Your task to perform on an android device: turn on location history Image 0: 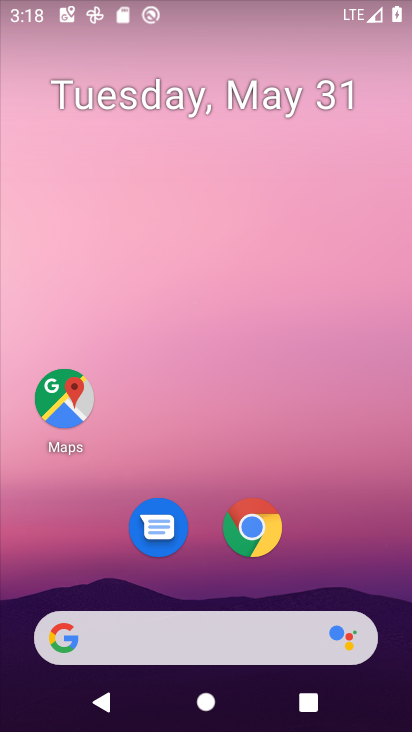
Step 0: drag from (384, 559) to (379, 57)
Your task to perform on an android device: turn on location history Image 1: 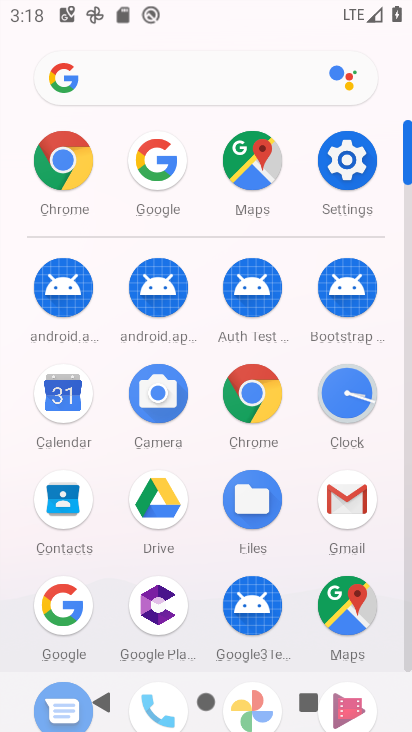
Step 1: click (362, 148)
Your task to perform on an android device: turn on location history Image 2: 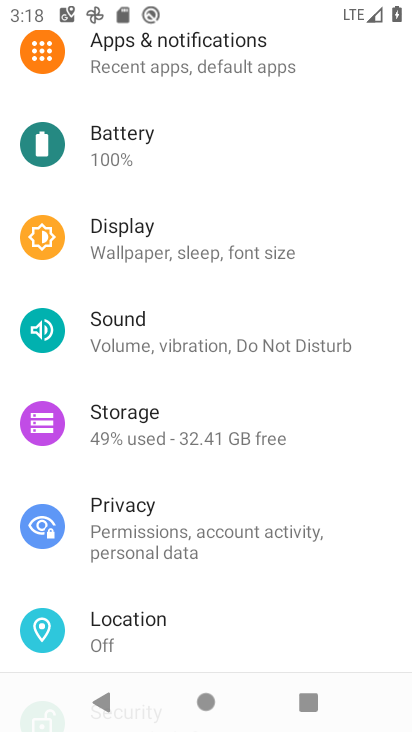
Step 2: click (135, 638)
Your task to perform on an android device: turn on location history Image 3: 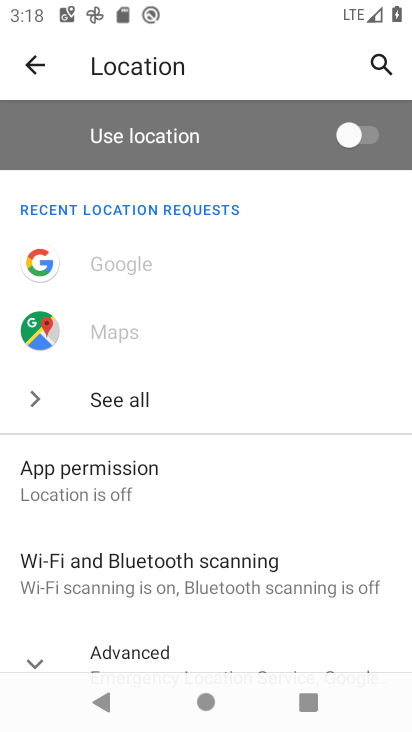
Step 3: drag from (277, 560) to (299, 212)
Your task to perform on an android device: turn on location history Image 4: 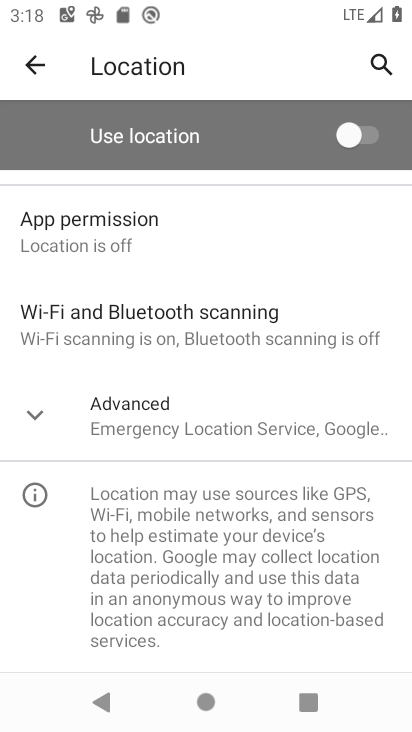
Step 4: click (153, 409)
Your task to perform on an android device: turn on location history Image 5: 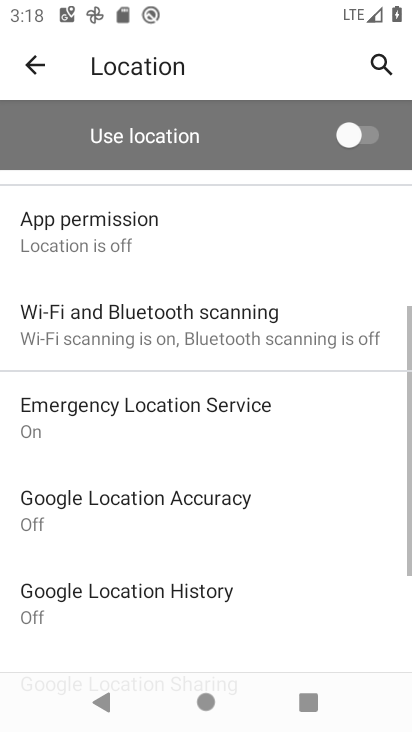
Step 5: drag from (173, 591) to (186, 334)
Your task to perform on an android device: turn on location history Image 6: 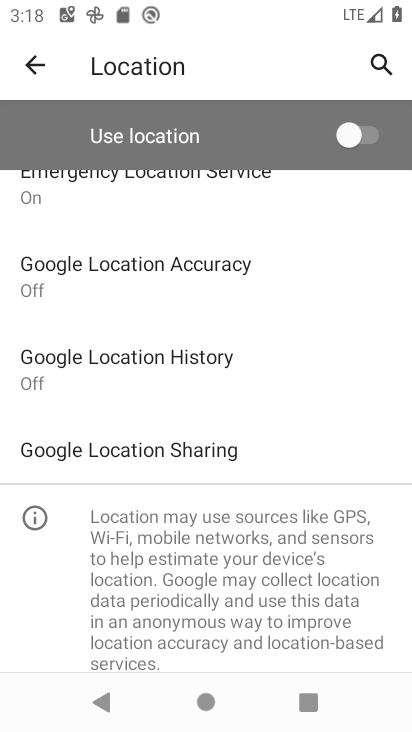
Step 6: click (168, 360)
Your task to perform on an android device: turn on location history Image 7: 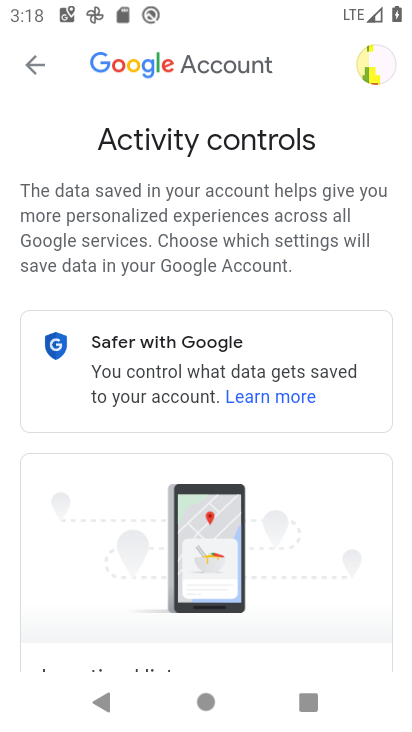
Step 7: task complete